Your task to perform on an android device: Go to network settings Image 0: 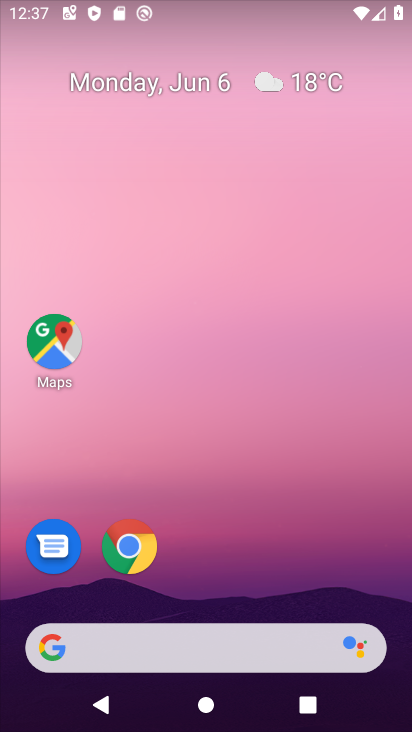
Step 0: drag from (293, 593) to (214, 147)
Your task to perform on an android device: Go to network settings Image 1: 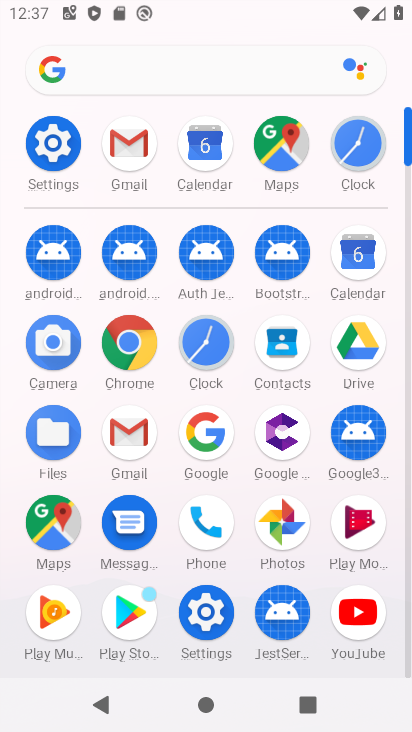
Step 1: click (58, 139)
Your task to perform on an android device: Go to network settings Image 2: 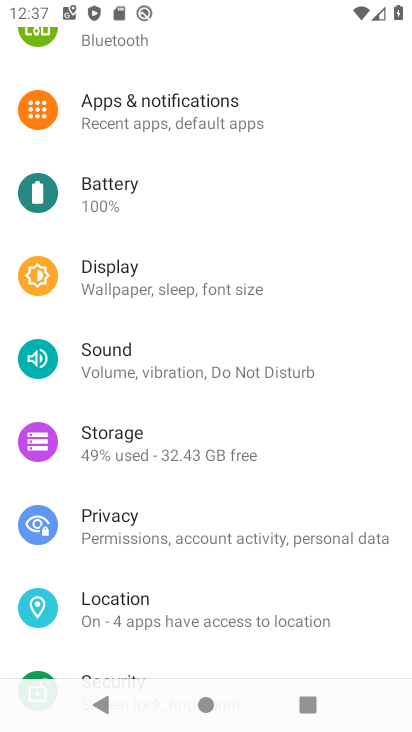
Step 2: drag from (224, 168) to (231, 402)
Your task to perform on an android device: Go to network settings Image 3: 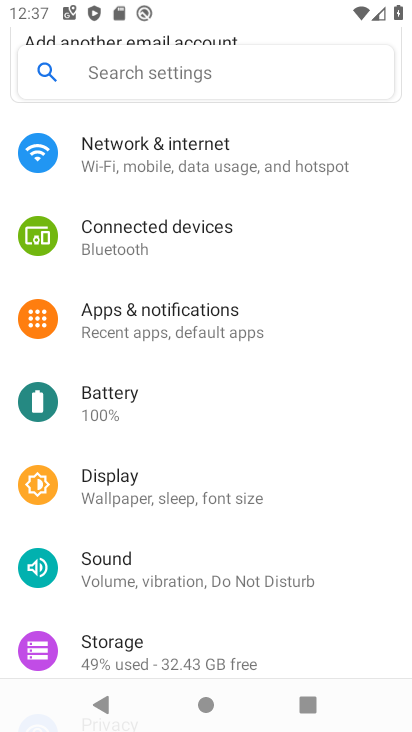
Step 3: click (175, 164)
Your task to perform on an android device: Go to network settings Image 4: 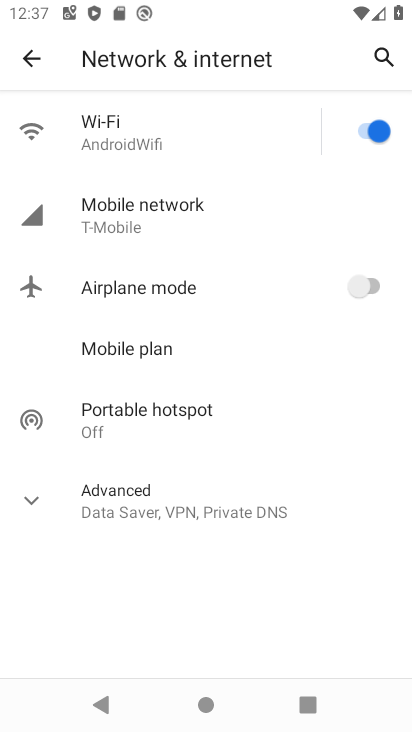
Step 4: task complete